Your task to perform on an android device: delete browsing data in the chrome app Image 0: 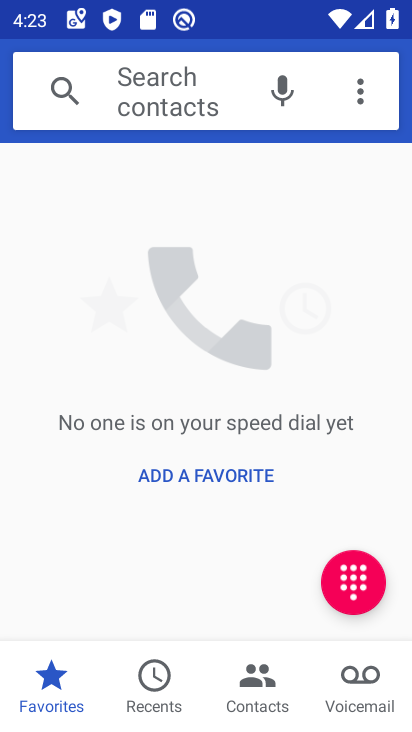
Step 0: press home button
Your task to perform on an android device: delete browsing data in the chrome app Image 1: 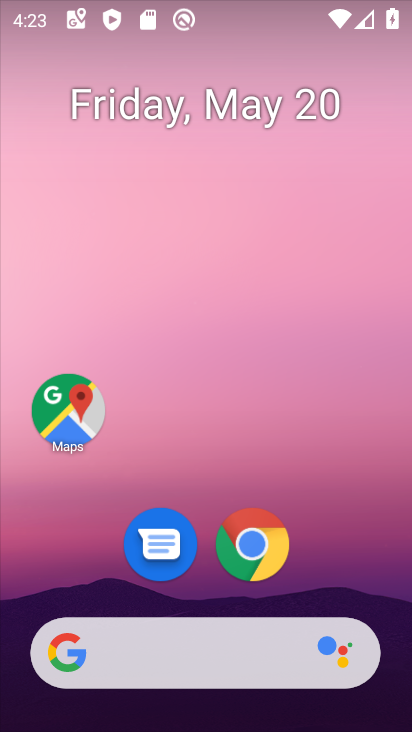
Step 1: click (254, 556)
Your task to perform on an android device: delete browsing data in the chrome app Image 2: 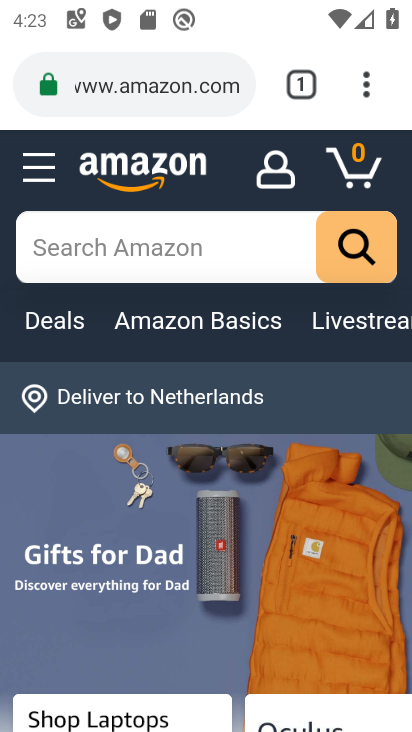
Step 2: click (364, 83)
Your task to perform on an android device: delete browsing data in the chrome app Image 3: 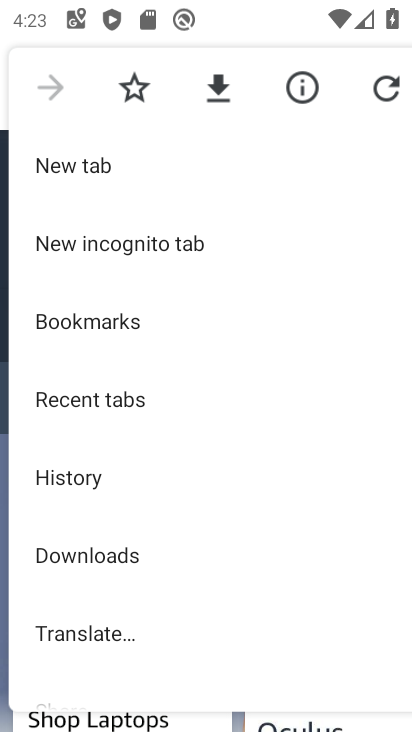
Step 3: drag from (186, 582) to (189, 94)
Your task to perform on an android device: delete browsing data in the chrome app Image 4: 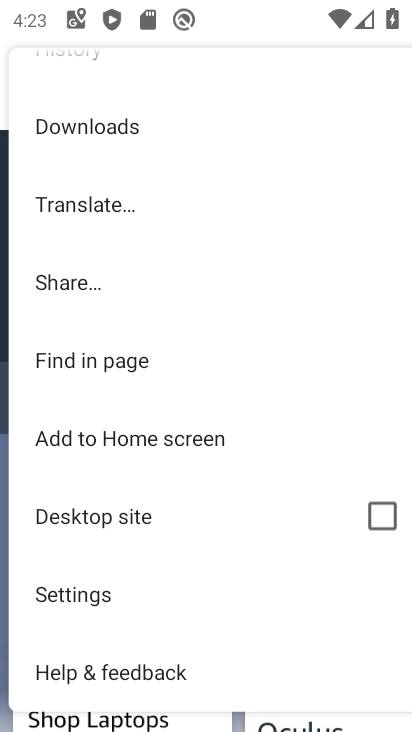
Step 4: drag from (178, 545) to (181, 200)
Your task to perform on an android device: delete browsing data in the chrome app Image 5: 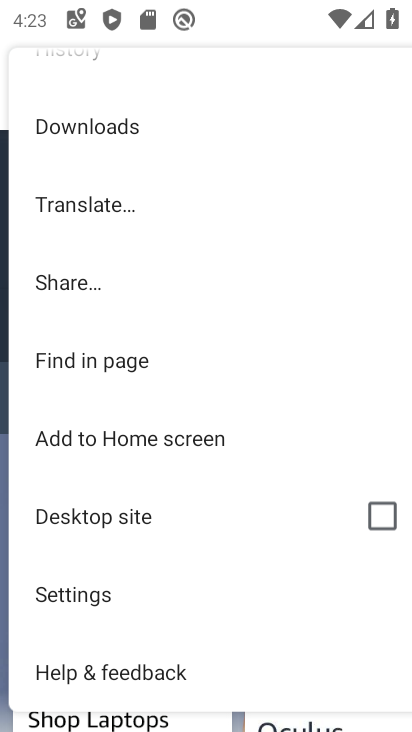
Step 5: click (73, 597)
Your task to perform on an android device: delete browsing data in the chrome app Image 6: 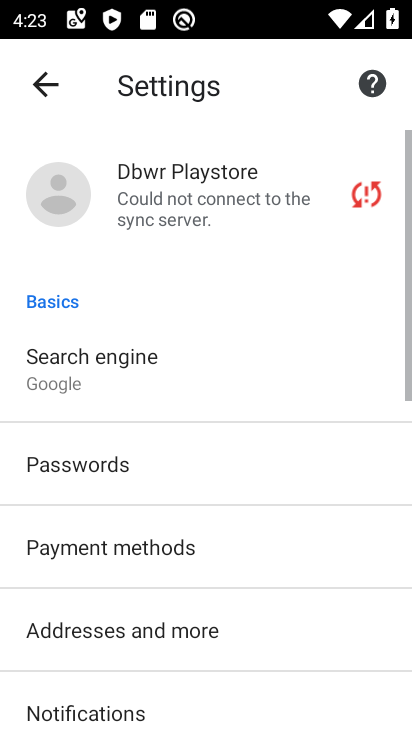
Step 6: drag from (141, 594) to (163, 228)
Your task to perform on an android device: delete browsing data in the chrome app Image 7: 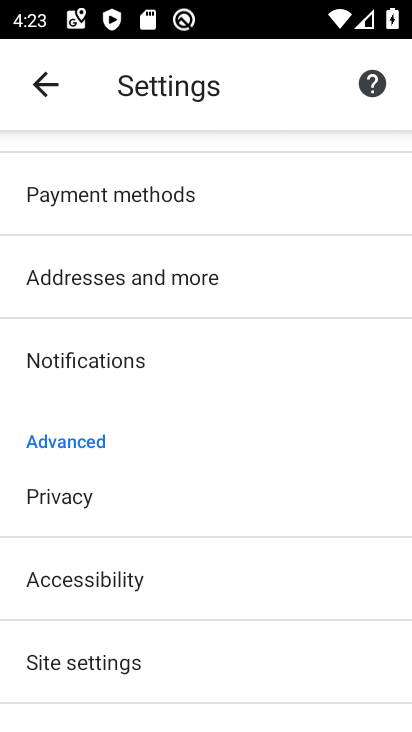
Step 7: click (72, 500)
Your task to perform on an android device: delete browsing data in the chrome app Image 8: 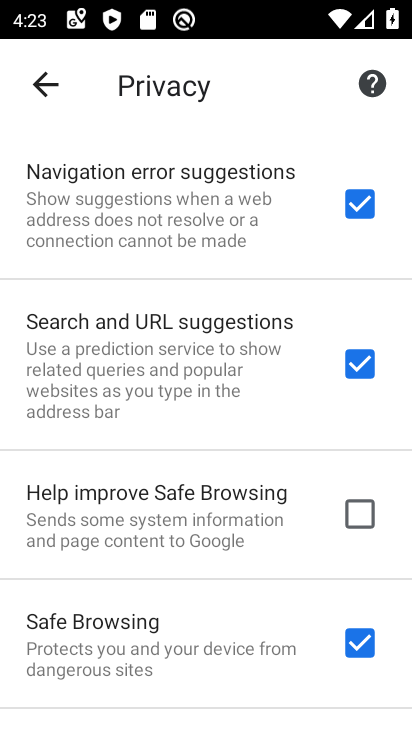
Step 8: drag from (147, 596) to (156, 178)
Your task to perform on an android device: delete browsing data in the chrome app Image 9: 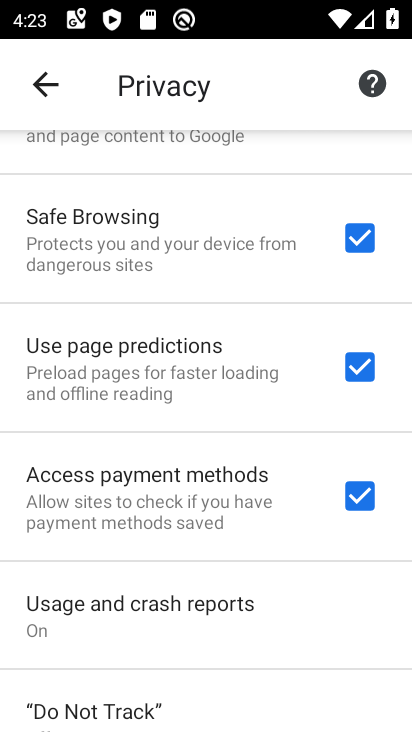
Step 9: drag from (138, 559) to (140, 205)
Your task to perform on an android device: delete browsing data in the chrome app Image 10: 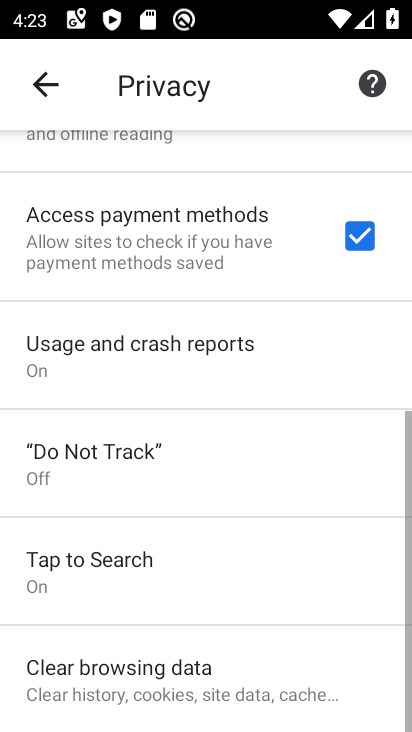
Step 10: drag from (109, 600) to (136, 226)
Your task to perform on an android device: delete browsing data in the chrome app Image 11: 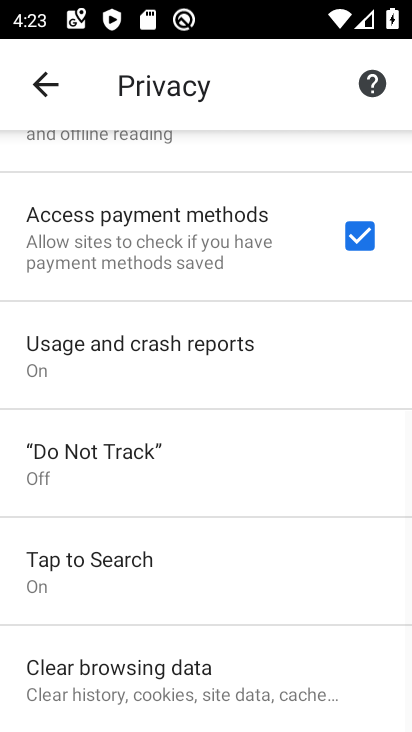
Step 11: click (95, 672)
Your task to perform on an android device: delete browsing data in the chrome app Image 12: 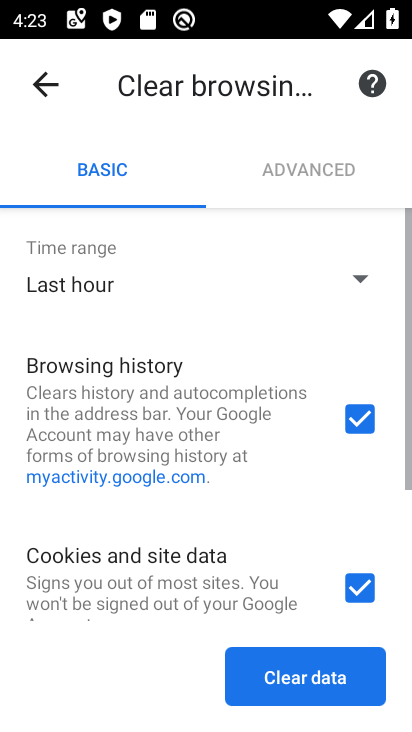
Step 12: click (366, 584)
Your task to perform on an android device: delete browsing data in the chrome app Image 13: 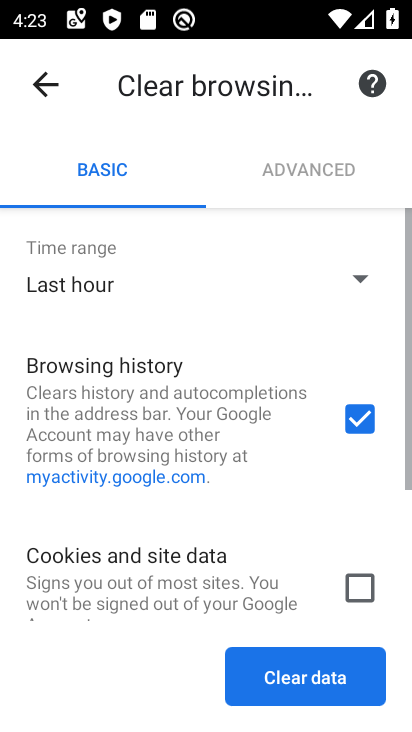
Step 13: drag from (139, 569) to (140, 276)
Your task to perform on an android device: delete browsing data in the chrome app Image 14: 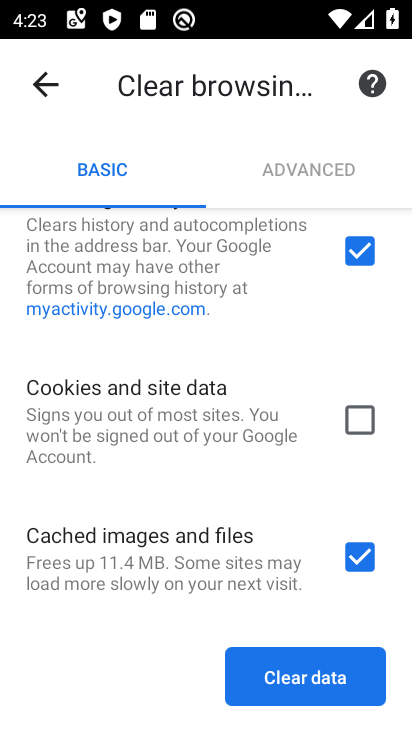
Step 14: click (347, 556)
Your task to perform on an android device: delete browsing data in the chrome app Image 15: 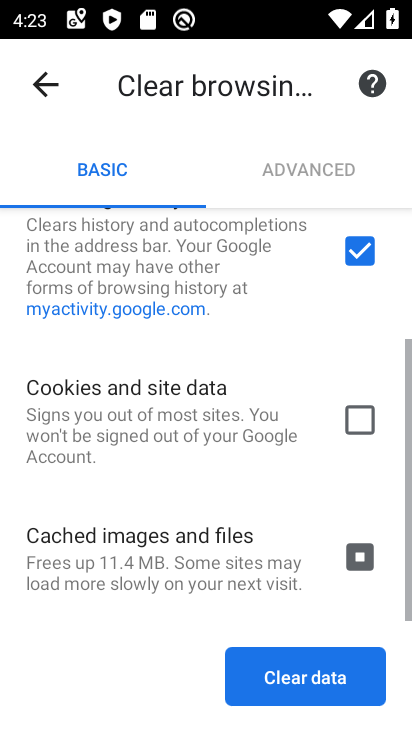
Step 15: drag from (232, 569) to (223, 342)
Your task to perform on an android device: delete browsing data in the chrome app Image 16: 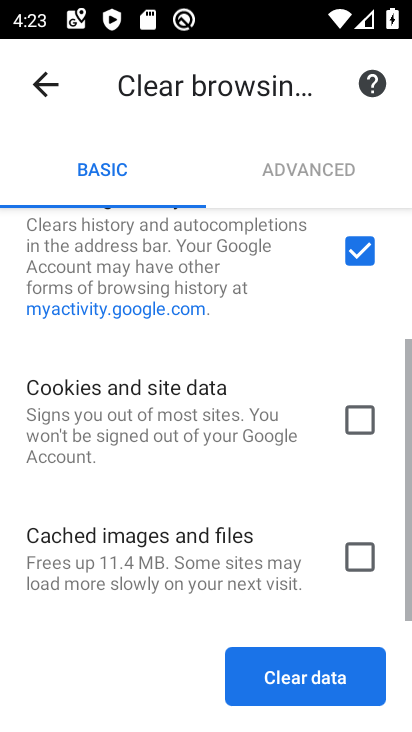
Step 16: click (321, 678)
Your task to perform on an android device: delete browsing data in the chrome app Image 17: 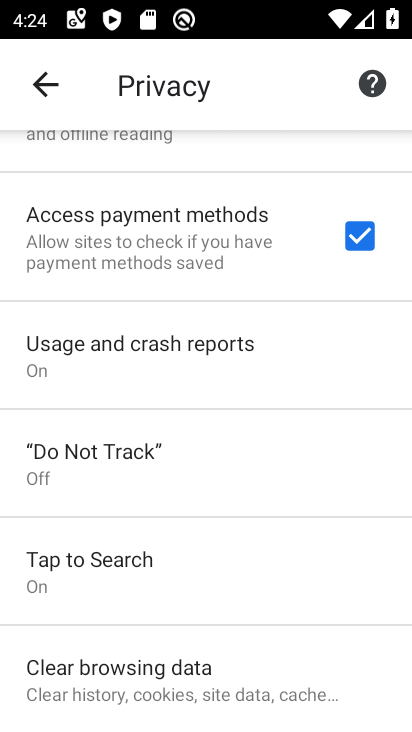
Step 17: task complete